Your task to perform on an android device: Open eBay Image 0: 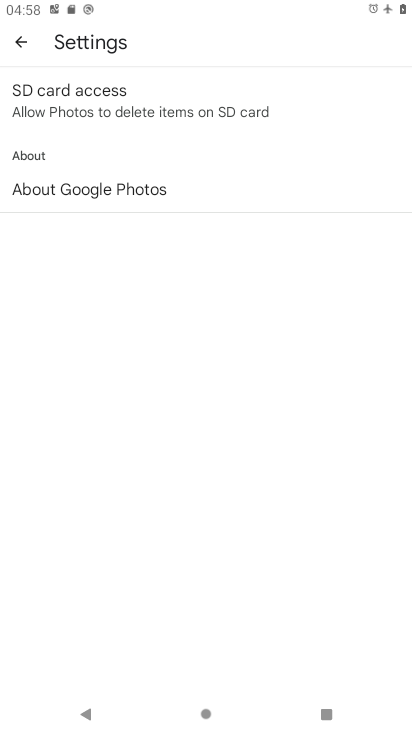
Step 0: press home button
Your task to perform on an android device: Open eBay Image 1: 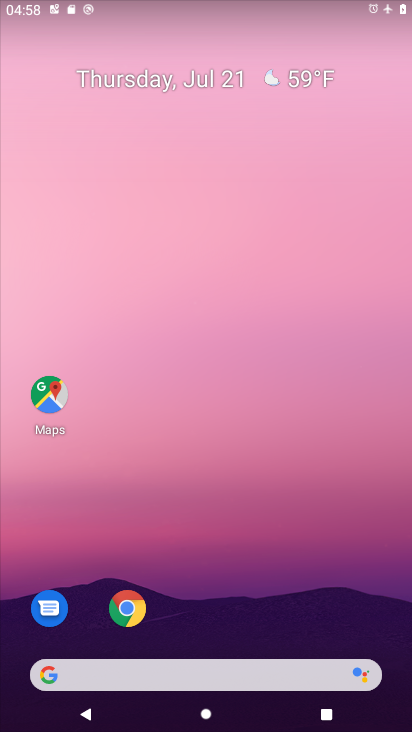
Step 1: drag from (205, 646) to (269, 89)
Your task to perform on an android device: Open eBay Image 2: 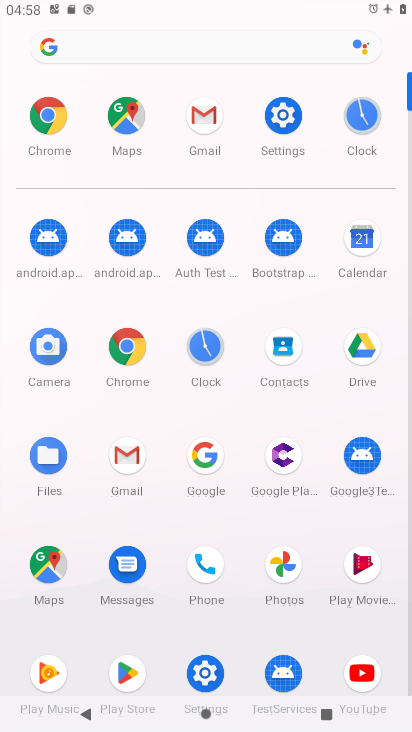
Step 2: click (140, 348)
Your task to perform on an android device: Open eBay Image 3: 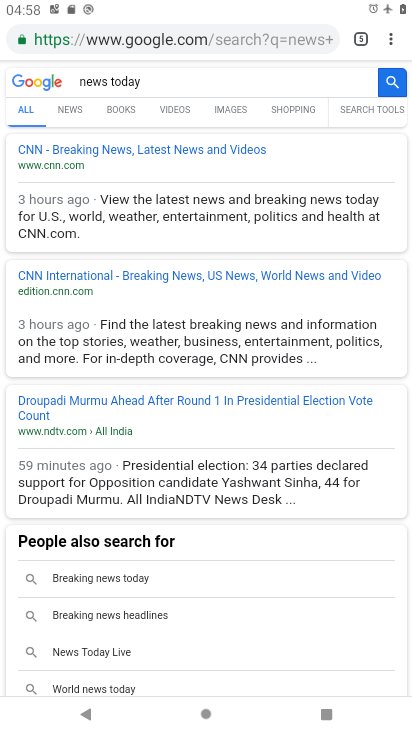
Step 3: drag from (390, 42) to (295, 69)
Your task to perform on an android device: Open eBay Image 4: 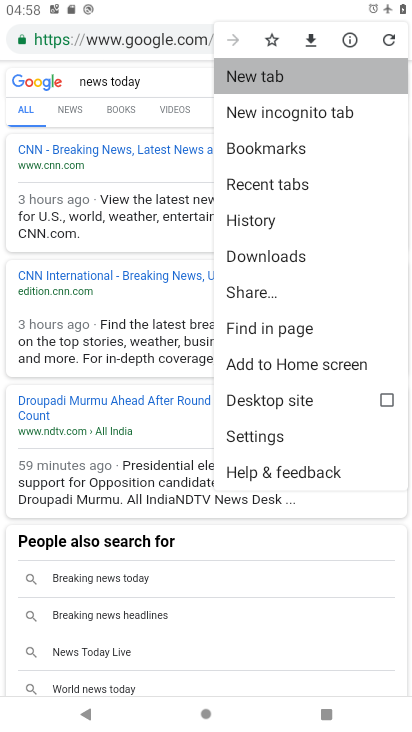
Step 4: click (292, 72)
Your task to perform on an android device: Open eBay Image 5: 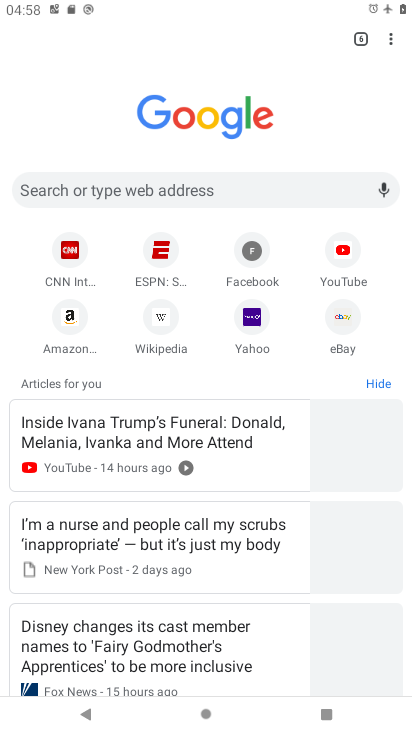
Step 5: click (335, 320)
Your task to perform on an android device: Open eBay Image 6: 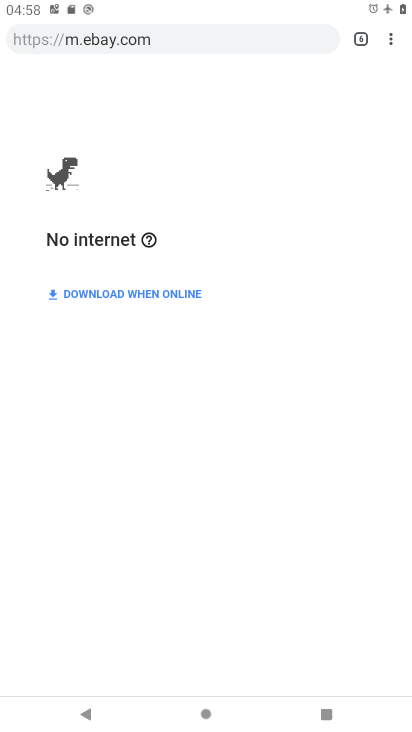
Step 6: task complete